Your task to perform on an android device: What's on my calendar tomorrow? Image 0: 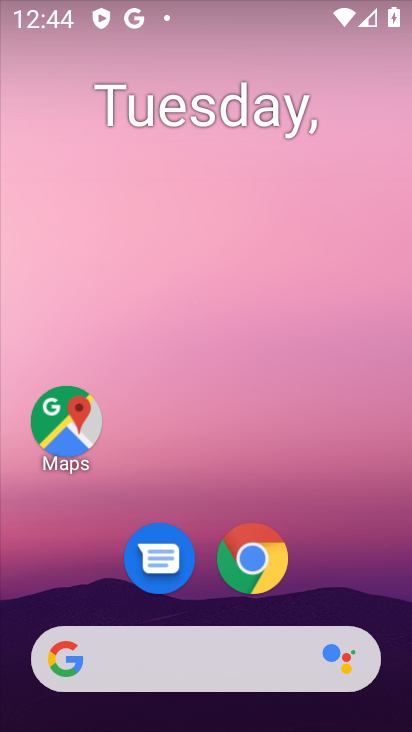
Step 0: drag from (349, 593) to (356, 211)
Your task to perform on an android device: What's on my calendar tomorrow? Image 1: 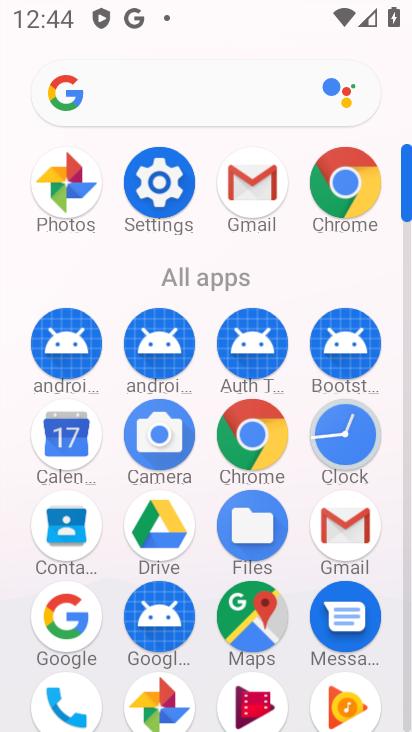
Step 1: click (71, 453)
Your task to perform on an android device: What's on my calendar tomorrow? Image 2: 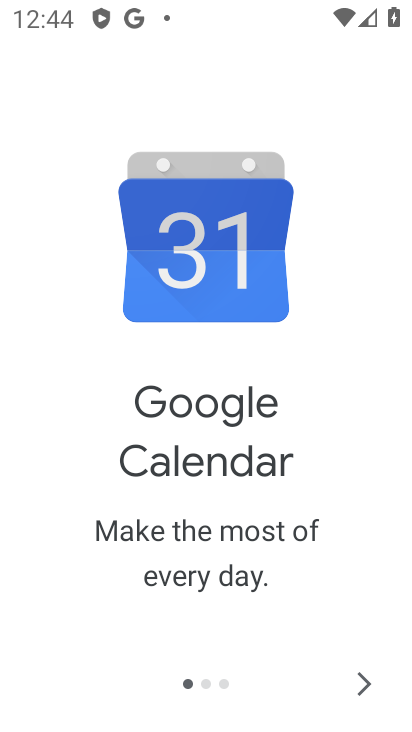
Step 2: click (357, 683)
Your task to perform on an android device: What's on my calendar tomorrow? Image 3: 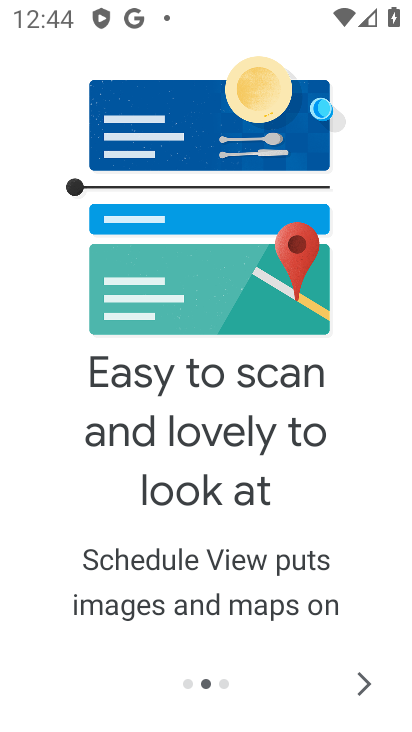
Step 3: click (351, 682)
Your task to perform on an android device: What's on my calendar tomorrow? Image 4: 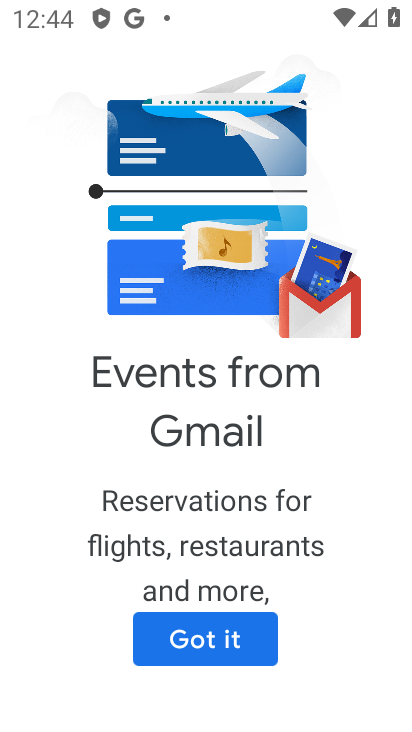
Step 4: click (351, 682)
Your task to perform on an android device: What's on my calendar tomorrow? Image 5: 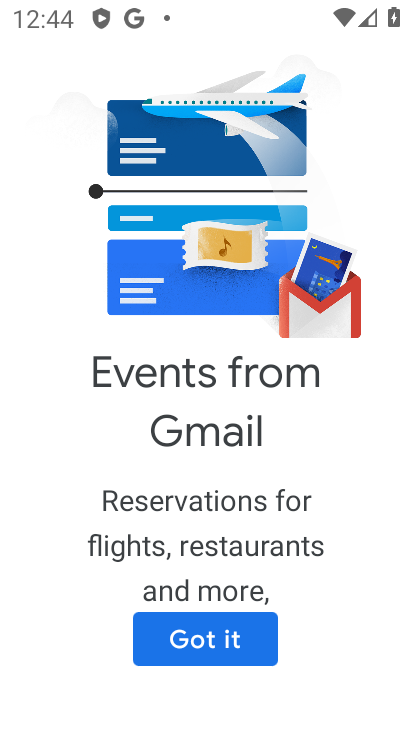
Step 5: click (174, 646)
Your task to perform on an android device: What's on my calendar tomorrow? Image 6: 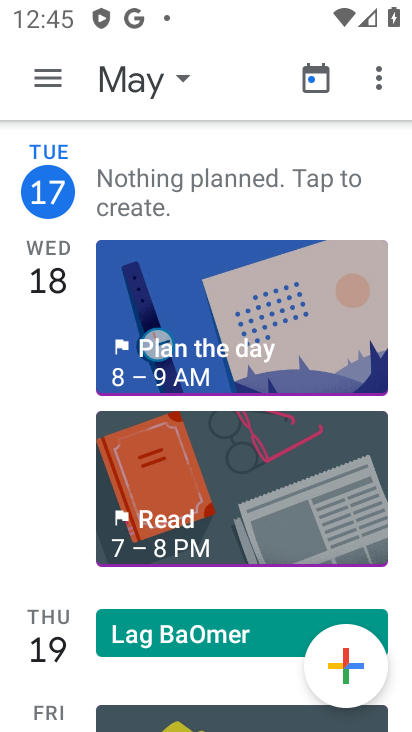
Step 6: click (168, 76)
Your task to perform on an android device: What's on my calendar tomorrow? Image 7: 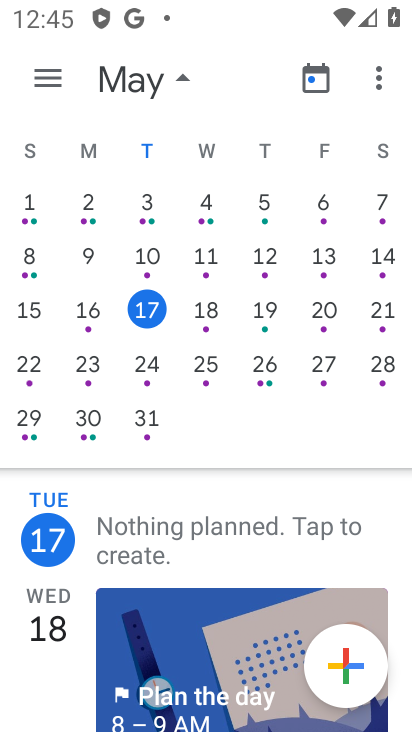
Step 7: click (209, 322)
Your task to perform on an android device: What's on my calendar tomorrow? Image 8: 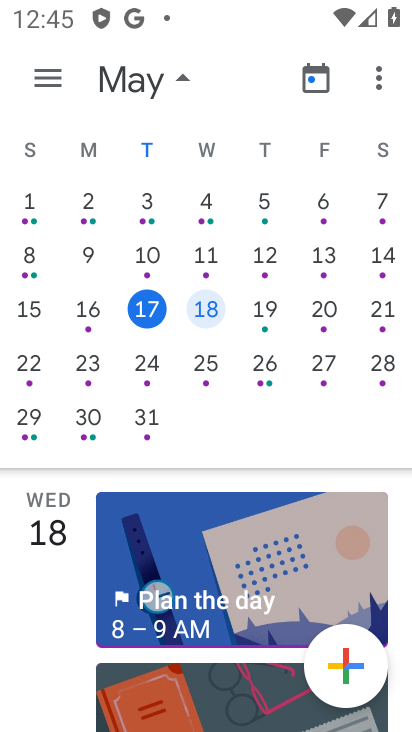
Step 8: task complete